Your task to perform on an android device: change the clock display to analog Image 0: 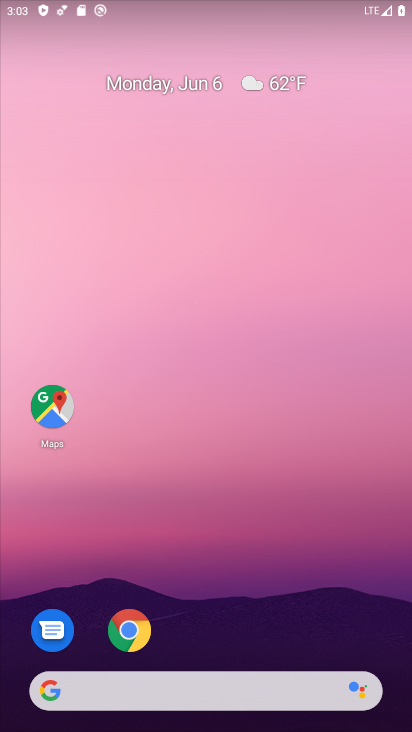
Step 0: press home button
Your task to perform on an android device: change the clock display to analog Image 1: 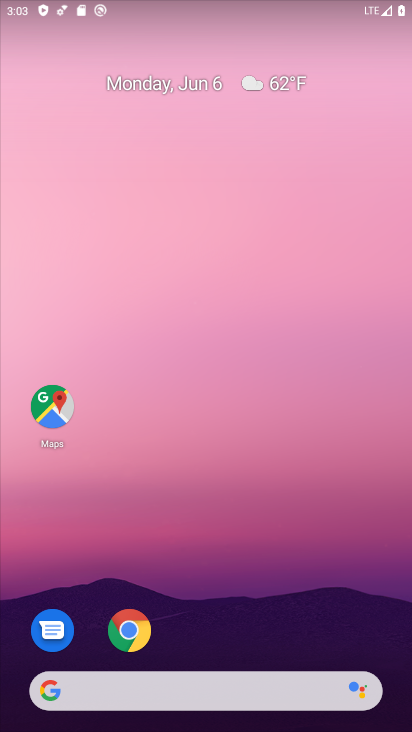
Step 1: drag from (337, 520) to (320, 8)
Your task to perform on an android device: change the clock display to analog Image 2: 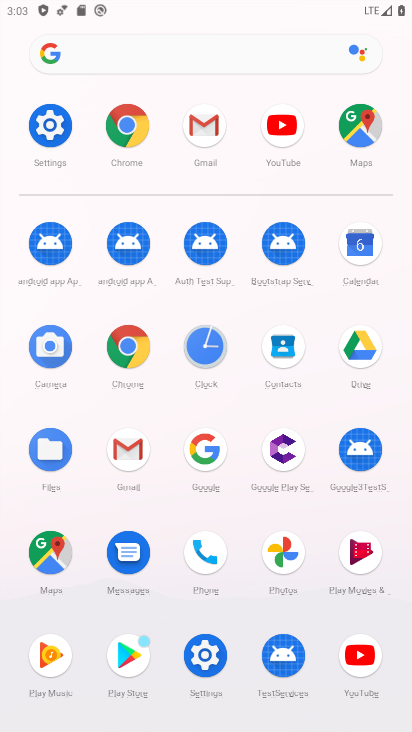
Step 2: click (208, 338)
Your task to perform on an android device: change the clock display to analog Image 3: 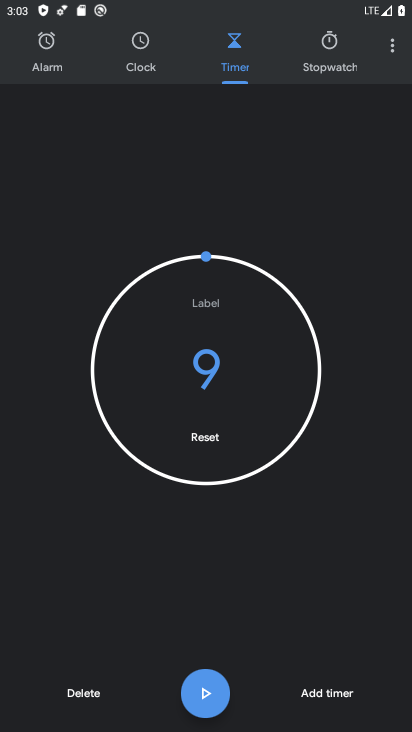
Step 3: click (396, 49)
Your task to perform on an android device: change the clock display to analog Image 4: 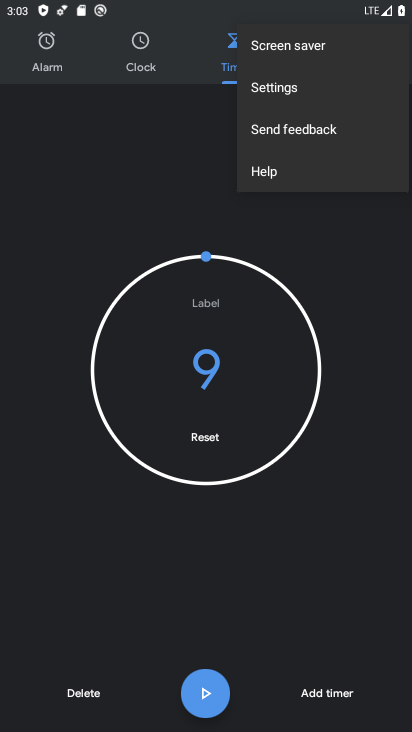
Step 4: click (302, 89)
Your task to perform on an android device: change the clock display to analog Image 5: 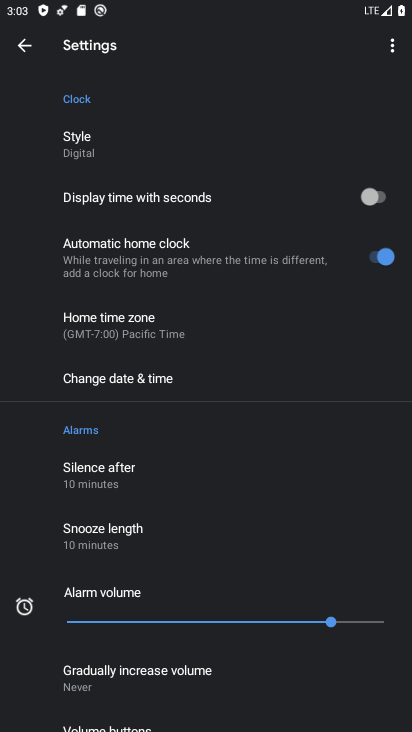
Step 5: click (74, 154)
Your task to perform on an android device: change the clock display to analog Image 6: 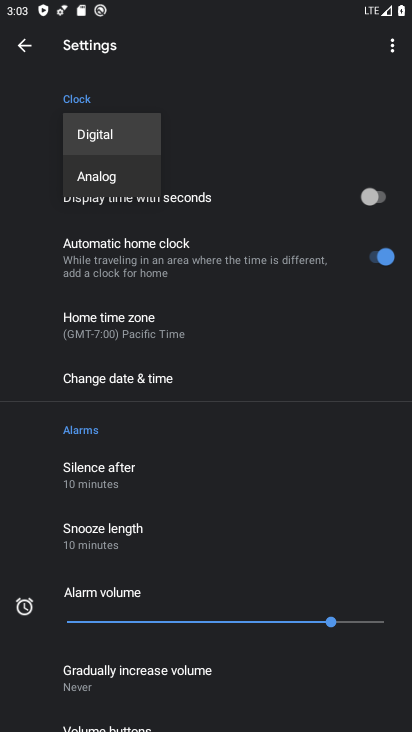
Step 6: click (115, 185)
Your task to perform on an android device: change the clock display to analog Image 7: 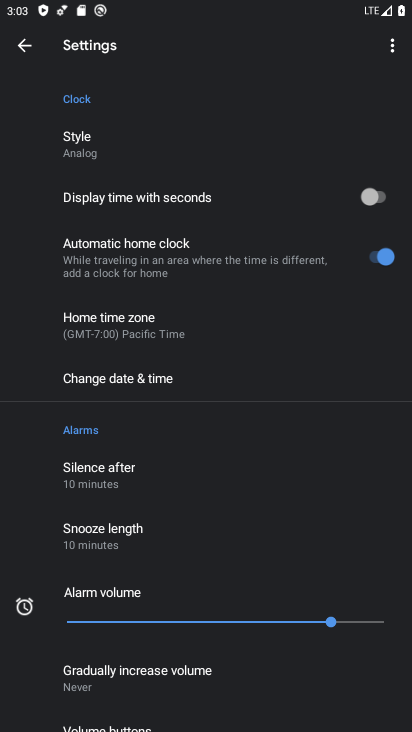
Step 7: task complete